Your task to perform on an android device: Open internet settings Image 0: 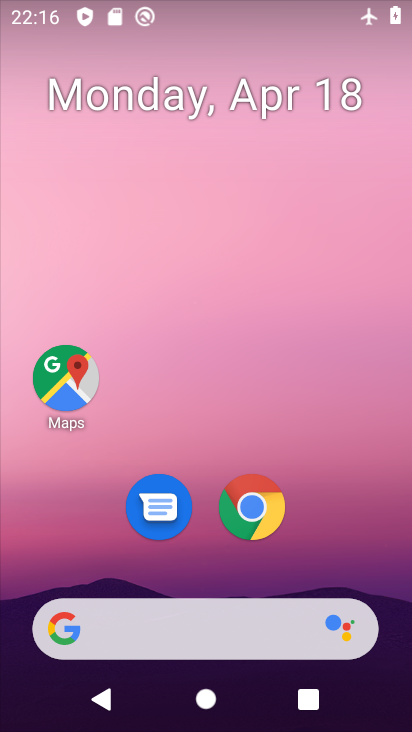
Step 0: drag from (368, 439) to (380, 67)
Your task to perform on an android device: Open internet settings Image 1: 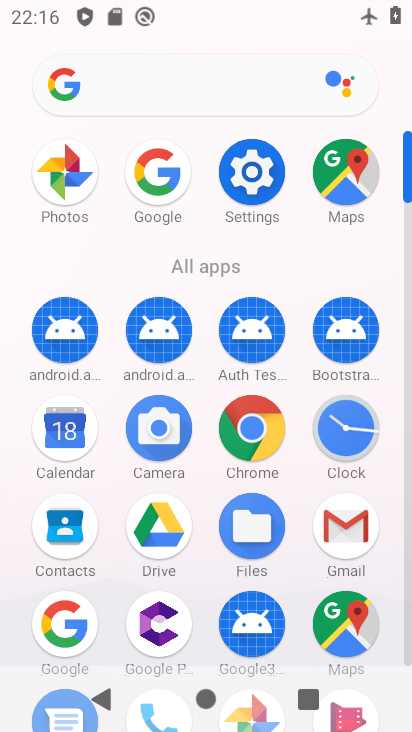
Step 1: click (261, 181)
Your task to perform on an android device: Open internet settings Image 2: 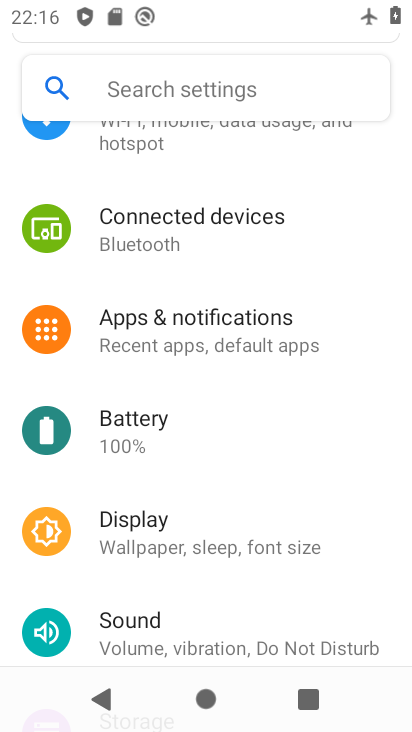
Step 2: drag from (259, 183) to (218, 469)
Your task to perform on an android device: Open internet settings Image 3: 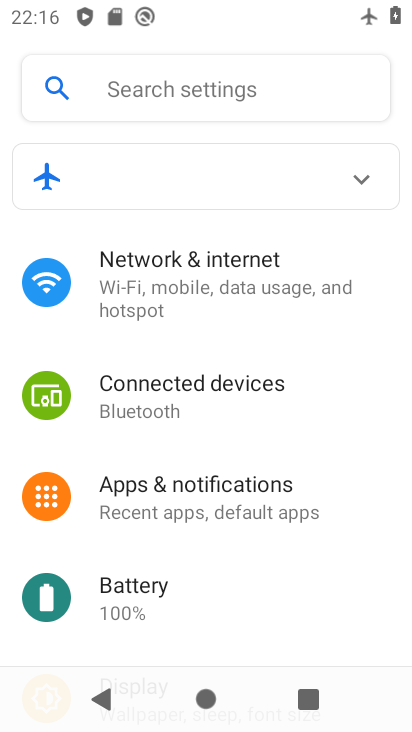
Step 3: click (249, 279)
Your task to perform on an android device: Open internet settings Image 4: 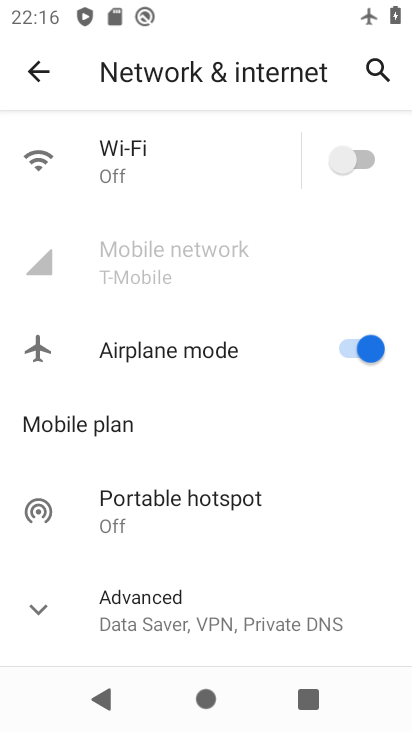
Step 4: task complete